Your task to perform on an android device: Go to eBay Image 0: 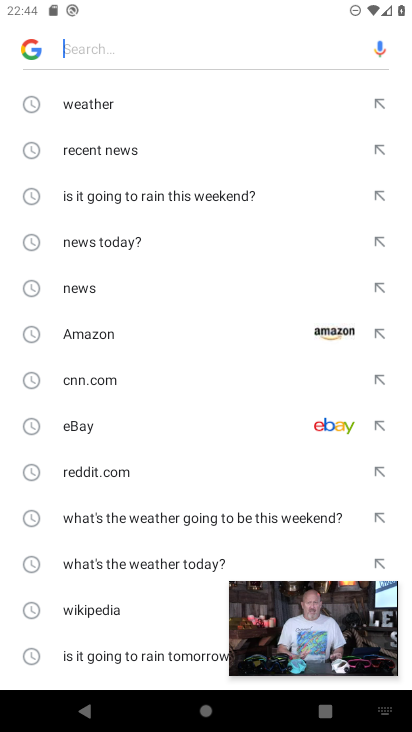
Step 0: press home button
Your task to perform on an android device: Go to eBay Image 1: 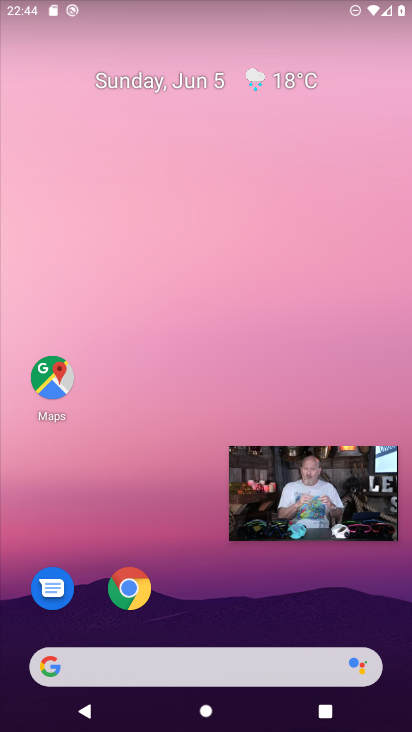
Step 1: drag from (323, 596) to (308, 155)
Your task to perform on an android device: Go to eBay Image 2: 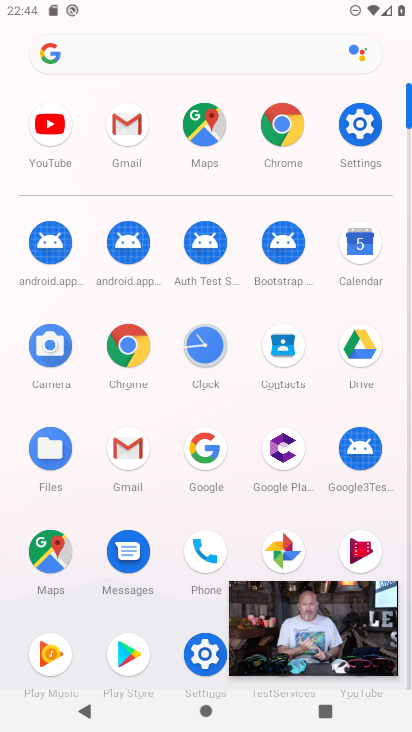
Step 2: click (132, 357)
Your task to perform on an android device: Go to eBay Image 3: 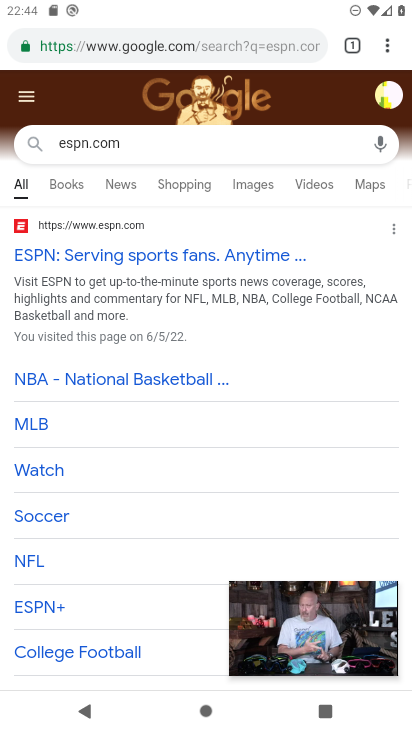
Step 3: click (260, 46)
Your task to perform on an android device: Go to eBay Image 4: 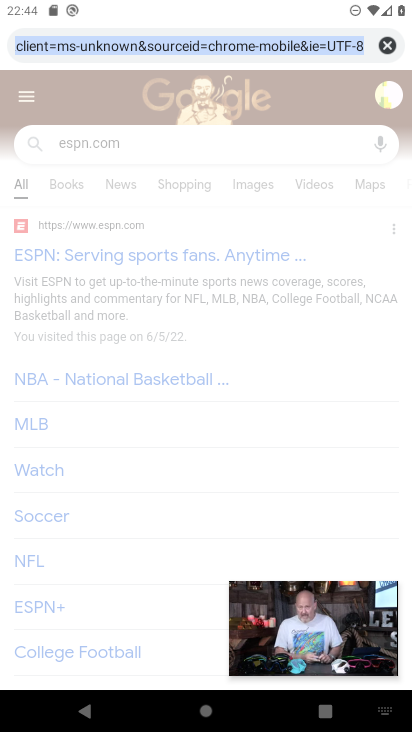
Step 4: click (384, 43)
Your task to perform on an android device: Go to eBay Image 5: 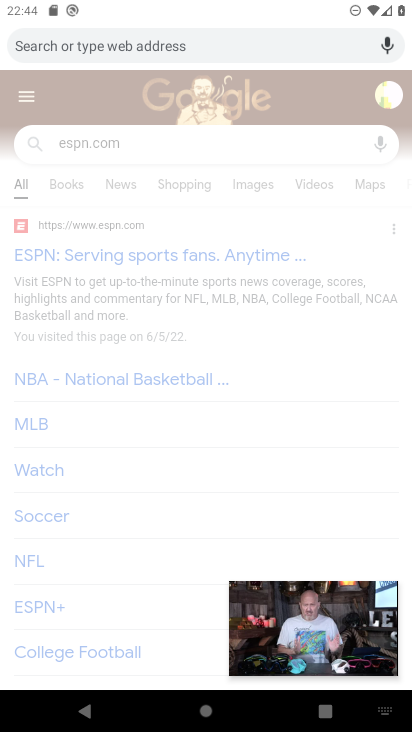
Step 5: click (277, 54)
Your task to perform on an android device: Go to eBay Image 6: 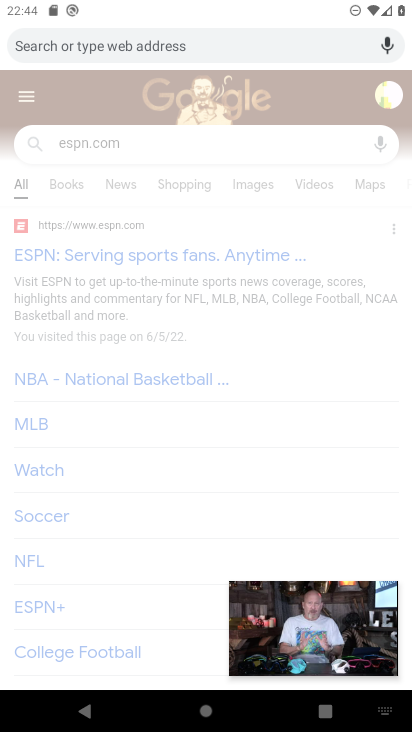
Step 6: type "ebay"
Your task to perform on an android device: Go to eBay Image 7: 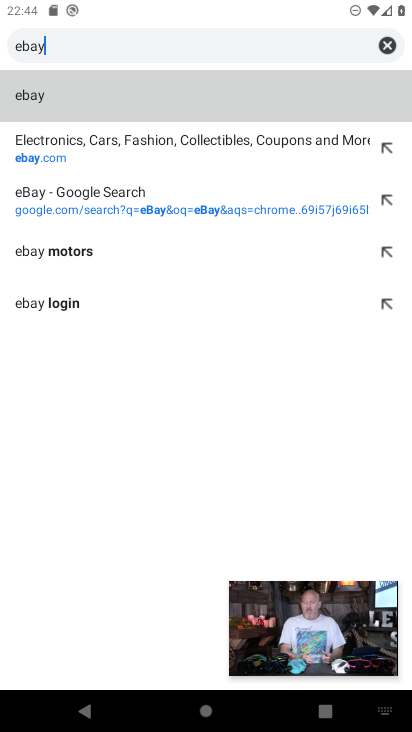
Step 7: click (159, 148)
Your task to perform on an android device: Go to eBay Image 8: 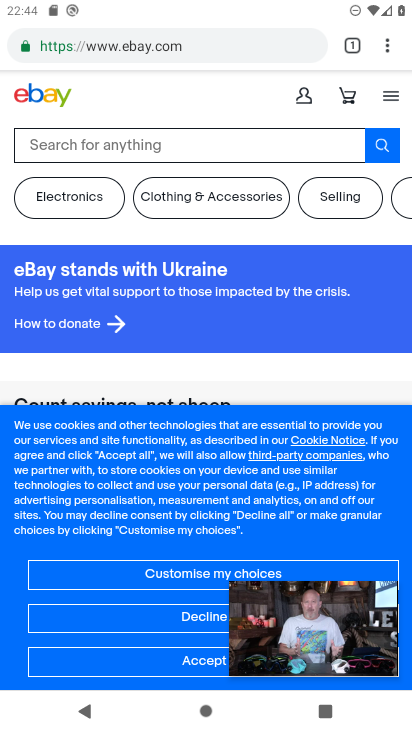
Step 8: task complete